Your task to perform on an android device: turn off improve location accuracy Image 0: 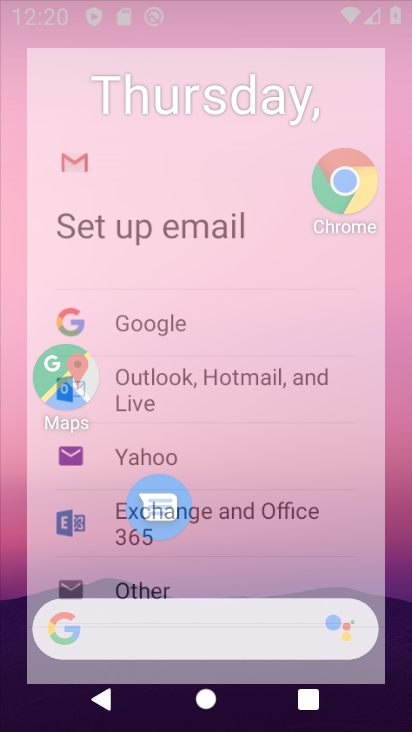
Step 0: drag from (276, 494) to (286, 178)
Your task to perform on an android device: turn off improve location accuracy Image 1: 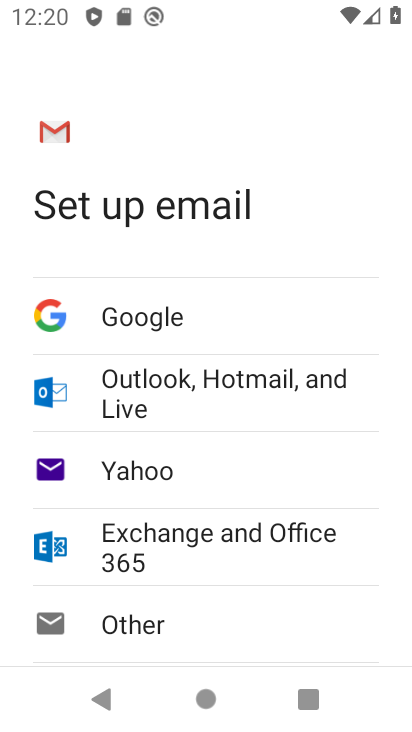
Step 1: press home button
Your task to perform on an android device: turn off improve location accuracy Image 2: 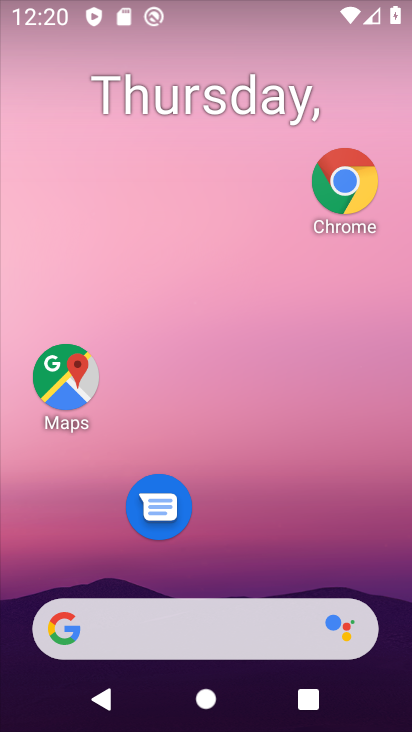
Step 2: drag from (173, 691) to (208, 308)
Your task to perform on an android device: turn off improve location accuracy Image 3: 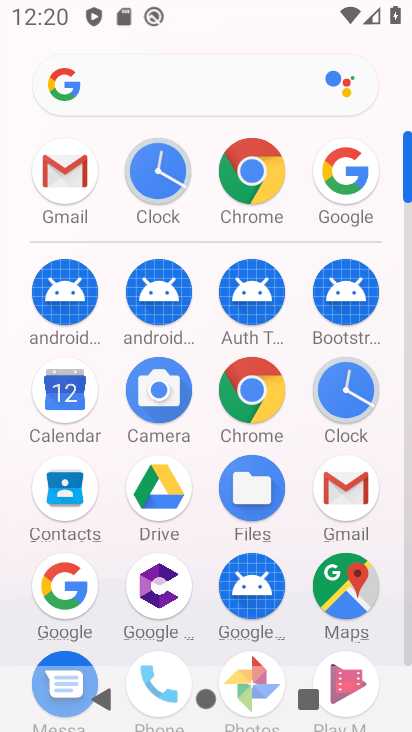
Step 3: drag from (127, 526) to (119, 314)
Your task to perform on an android device: turn off improve location accuracy Image 4: 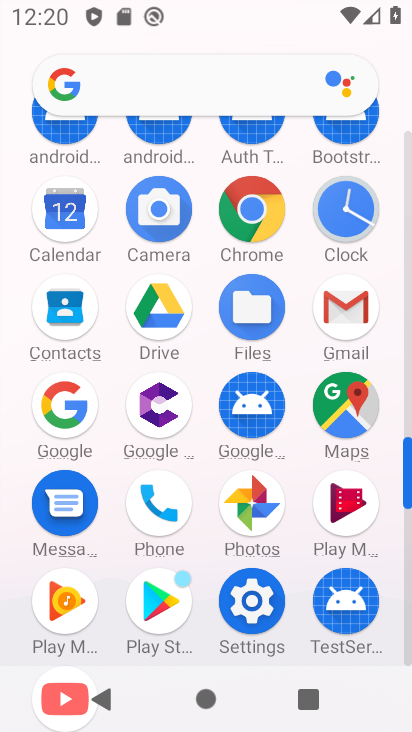
Step 4: click (252, 625)
Your task to perform on an android device: turn off improve location accuracy Image 5: 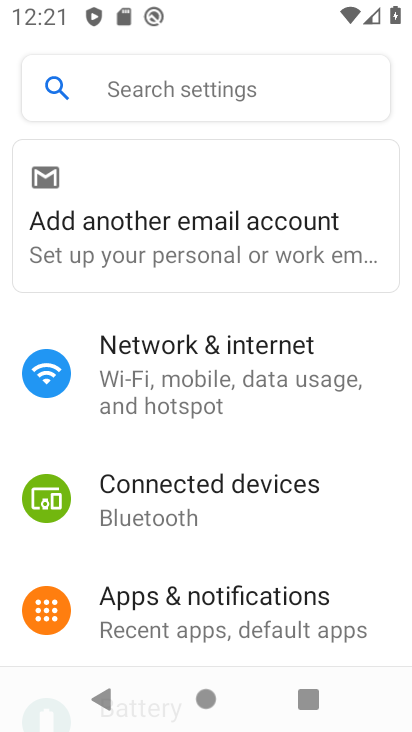
Step 5: drag from (214, 574) to (278, 297)
Your task to perform on an android device: turn off improve location accuracy Image 6: 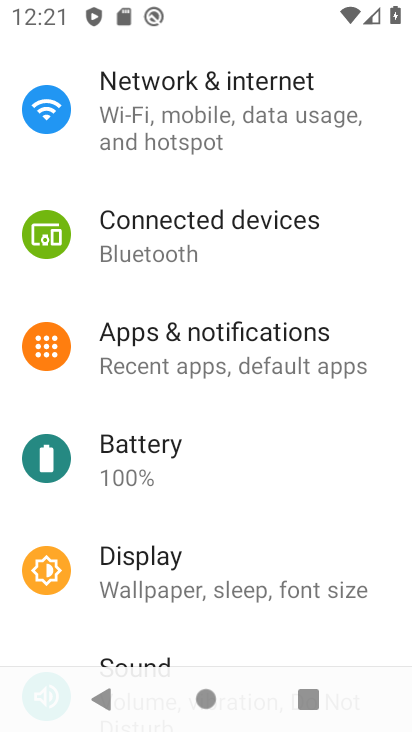
Step 6: drag from (130, 486) to (187, 359)
Your task to perform on an android device: turn off improve location accuracy Image 7: 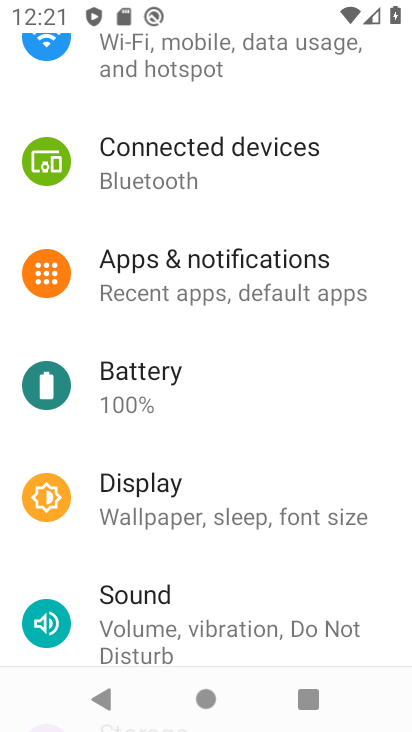
Step 7: drag from (206, 526) to (274, 246)
Your task to perform on an android device: turn off improve location accuracy Image 8: 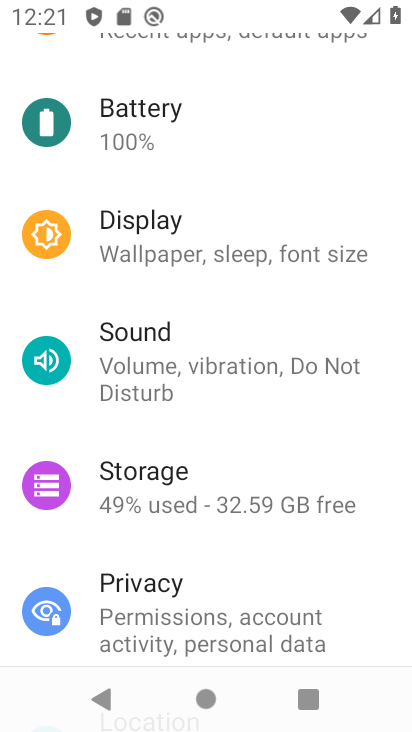
Step 8: drag from (231, 361) to (236, 158)
Your task to perform on an android device: turn off improve location accuracy Image 9: 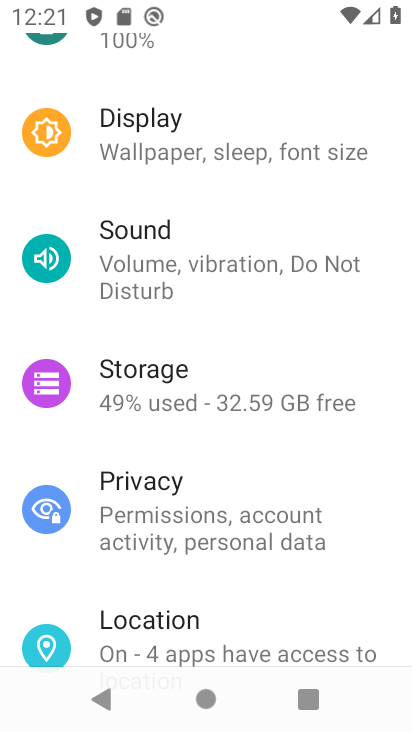
Step 9: click (149, 642)
Your task to perform on an android device: turn off improve location accuracy Image 10: 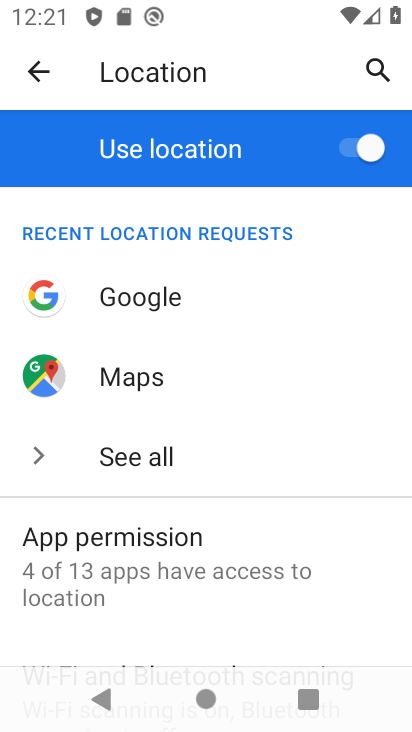
Step 10: drag from (205, 587) to (321, 105)
Your task to perform on an android device: turn off improve location accuracy Image 11: 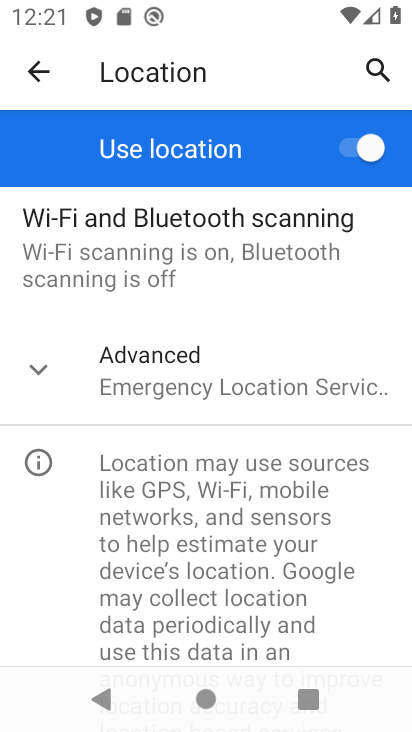
Step 11: click (200, 346)
Your task to perform on an android device: turn off improve location accuracy Image 12: 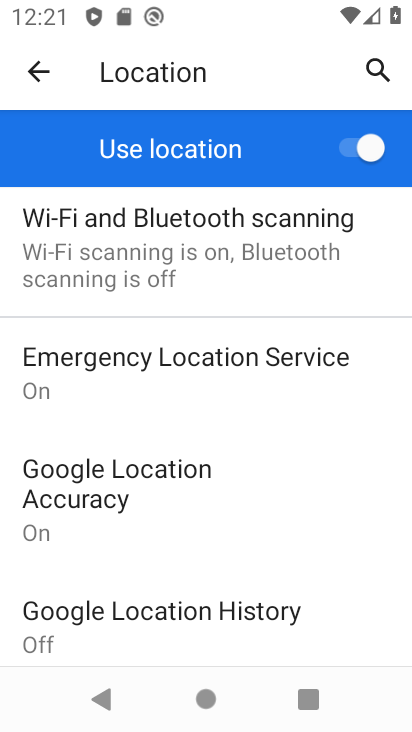
Step 12: click (153, 496)
Your task to perform on an android device: turn off improve location accuracy Image 13: 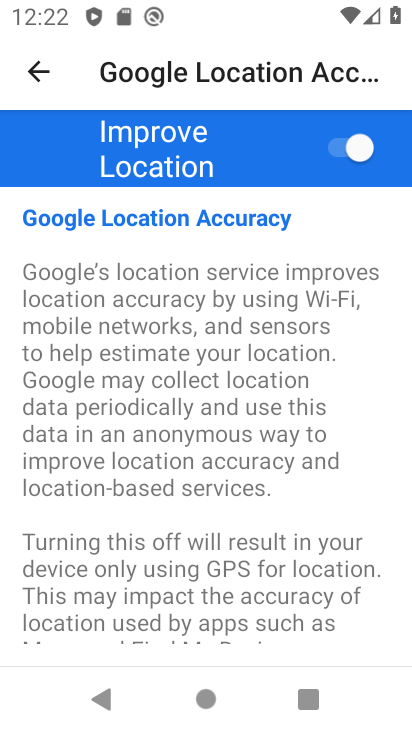
Step 13: click (321, 158)
Your task to perform on an android device: turn off improve location accuracy Image 14: 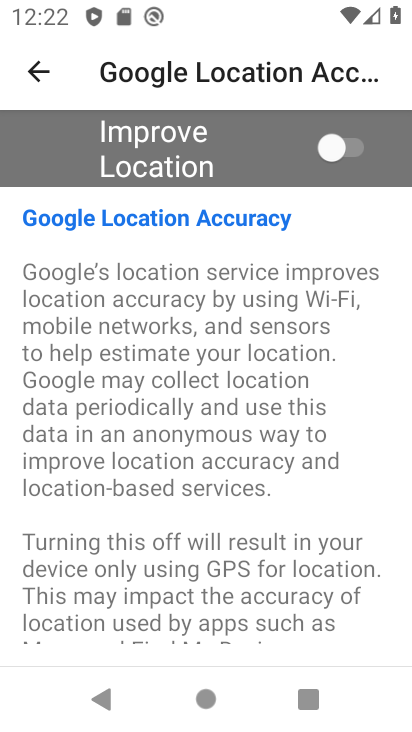
Step 14: task complete